Your task to perform on an android device: open a bookmark in the chrome app Image 0: 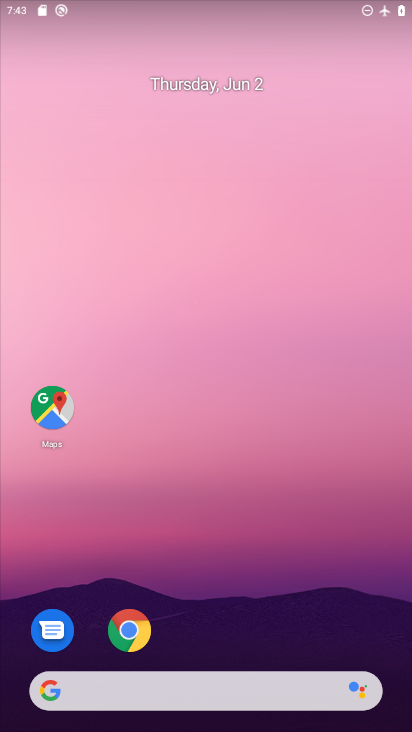
Step 0: click (134, 651)
Your task to perform on an android device: open a bookmark in the chrome app Image 1: 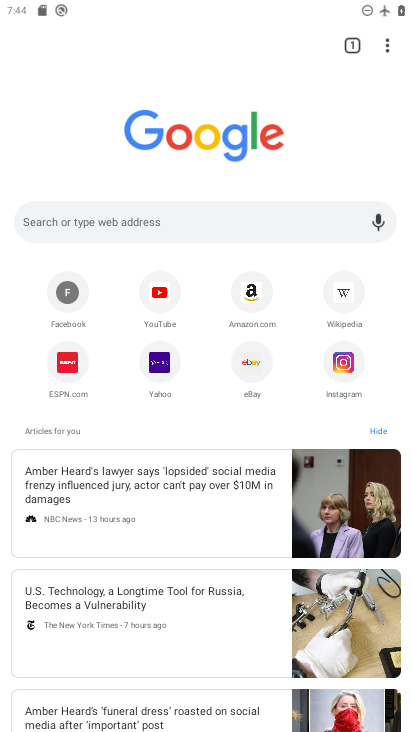
Step 1: click (391, 46)
Your task to perform on an android device: open a bookmark in the chrome app Image 2: 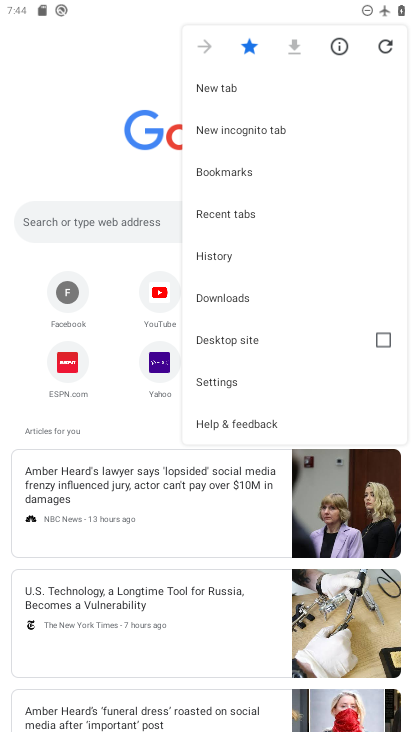
Step 2: click (227, 184)
Your task to perform on an android device: open a bookmark in the chrome app Image 3: 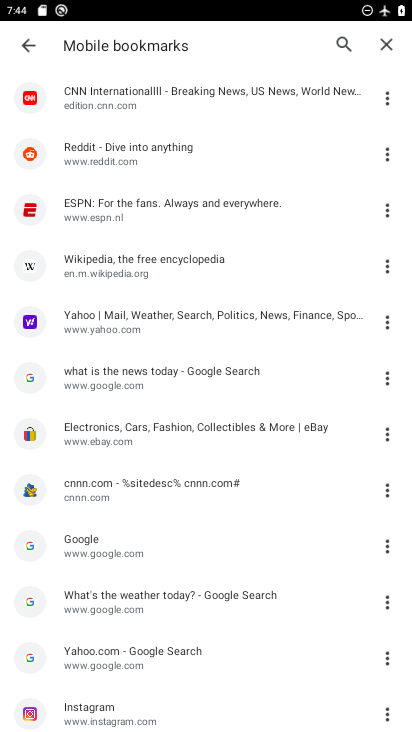
Step 3: click (131, 95)
Your task to perform on an android device: open a bookmark in the chrome app Image 4: 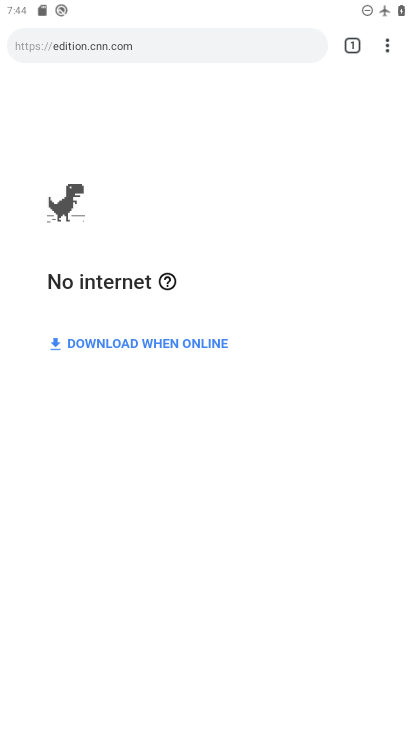
Step 4: task complete